Your task to perform on an android device: Open Chrome and go to settings Image 0: 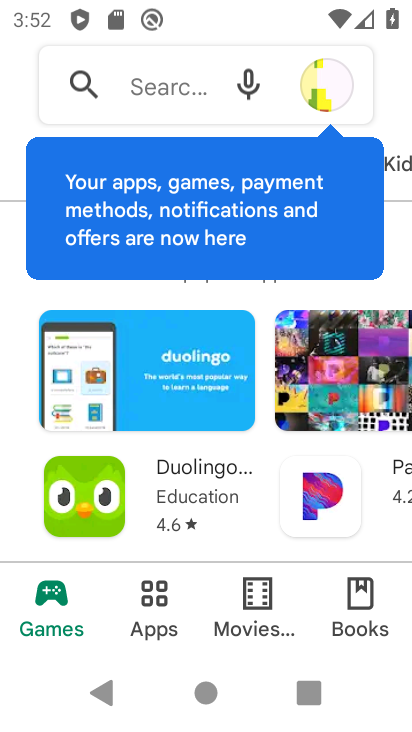
Step 0: press home button
Your task to perform on an android device: Open Chrome and go to settings Image 1: 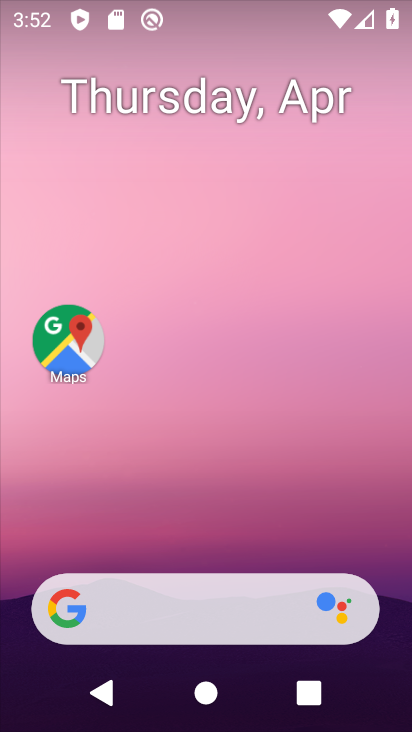
Step 1: drag from (202, 698) to (163, 88)
Your task to perform on an android device: Open Chrome and go to settings Image 2: 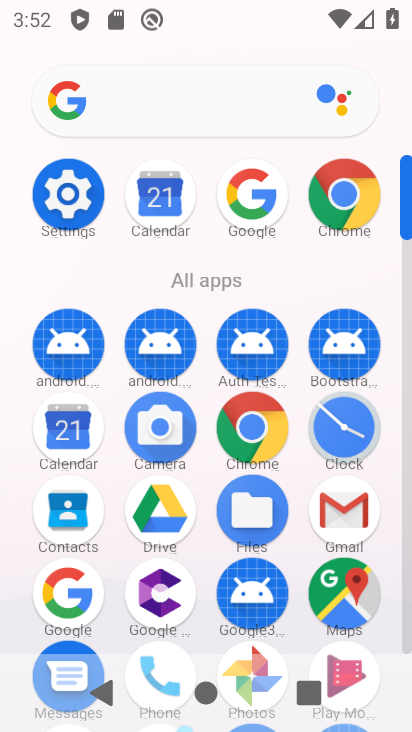
Step 2: click (349, 194)
Your task to perform on an android device: Open Chrome and go to settings Image 3: 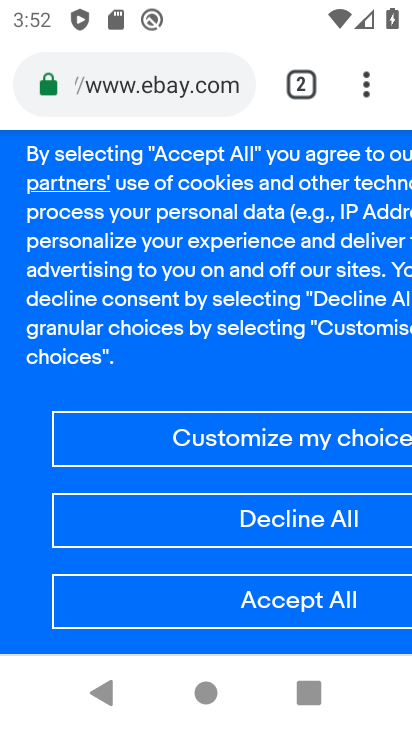
Step 3: task complete